Your task to perform on an android device: What's on my calendar today? Image 0: 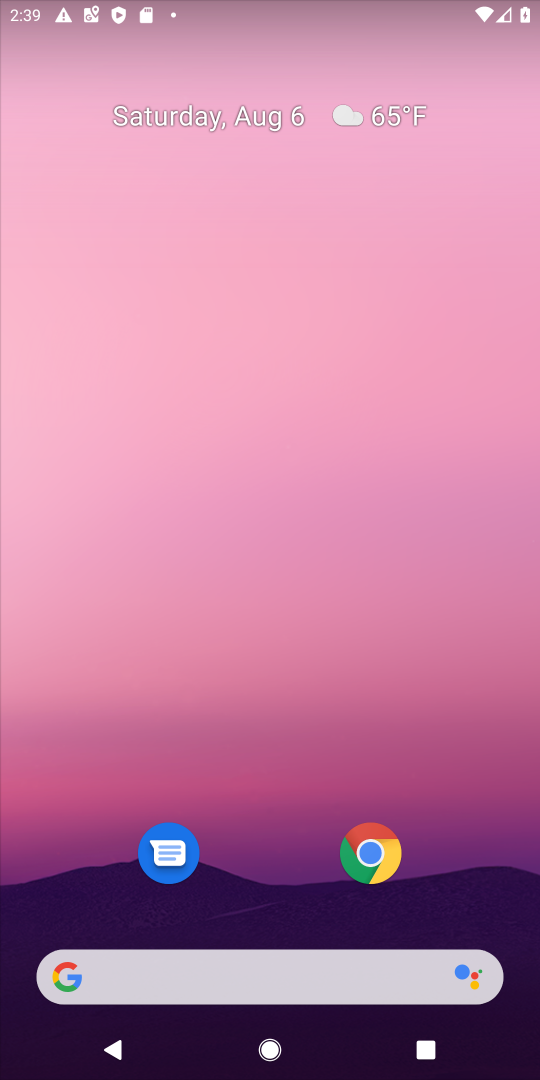
Step 0: drag from (230, 823) to (296, 76)
Your task to perform on an android device: What's on my calendar today? Image 1: 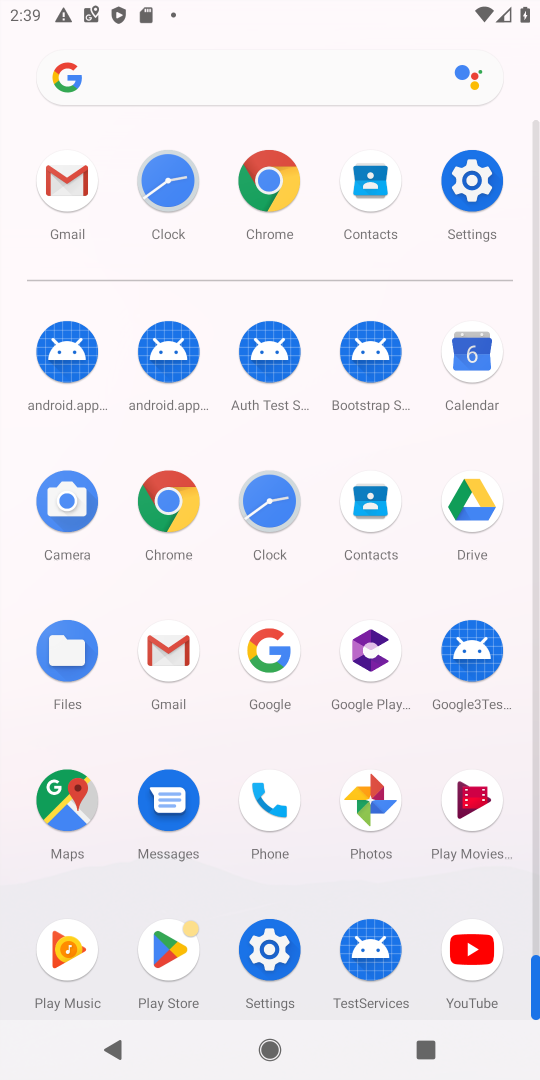
Step 1: click (473, 362)
Your task to perform on an android device: What's on my calendar today? Image 2: 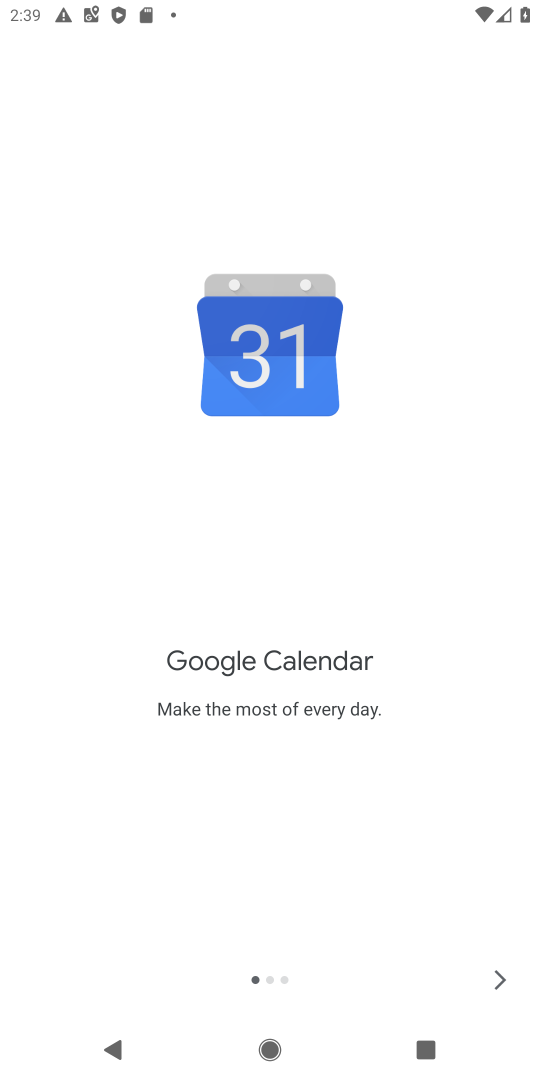
Step 2: click (510, 965)
Your task to perform on an android device: What's on my calendar today? Image 3: 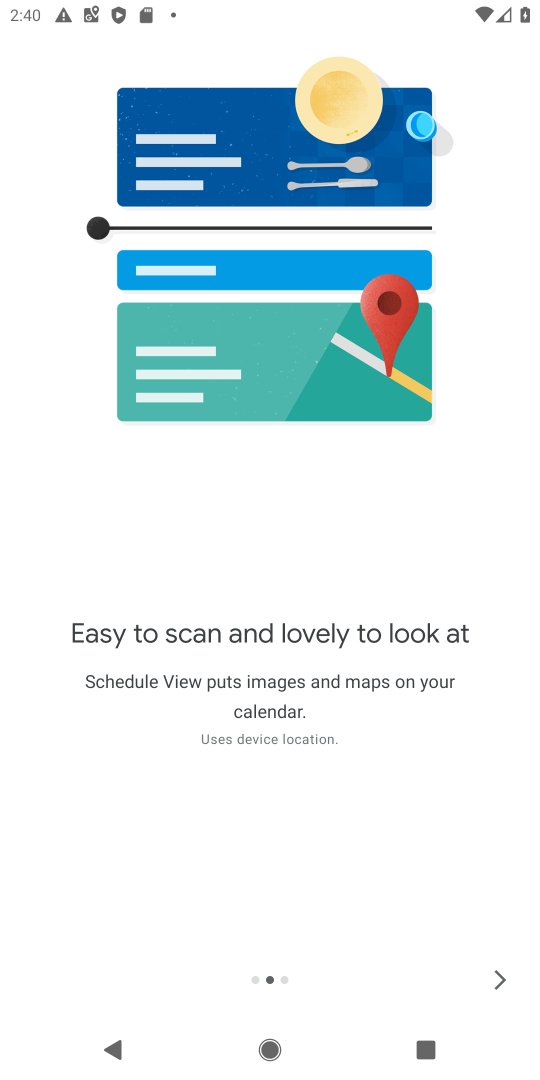
Step 3: click (485, 994)
Your task to perform on an android device: What's on my calendar today? Image 4: 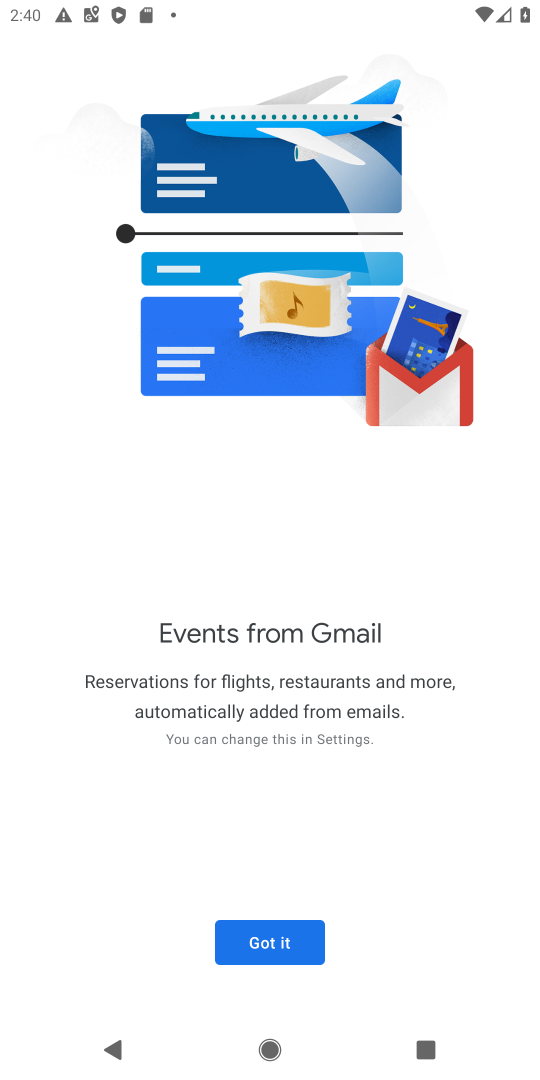
Step 4: click (234, 946)
Your task to perform on an android device: What's on my calendar today? Image 5: 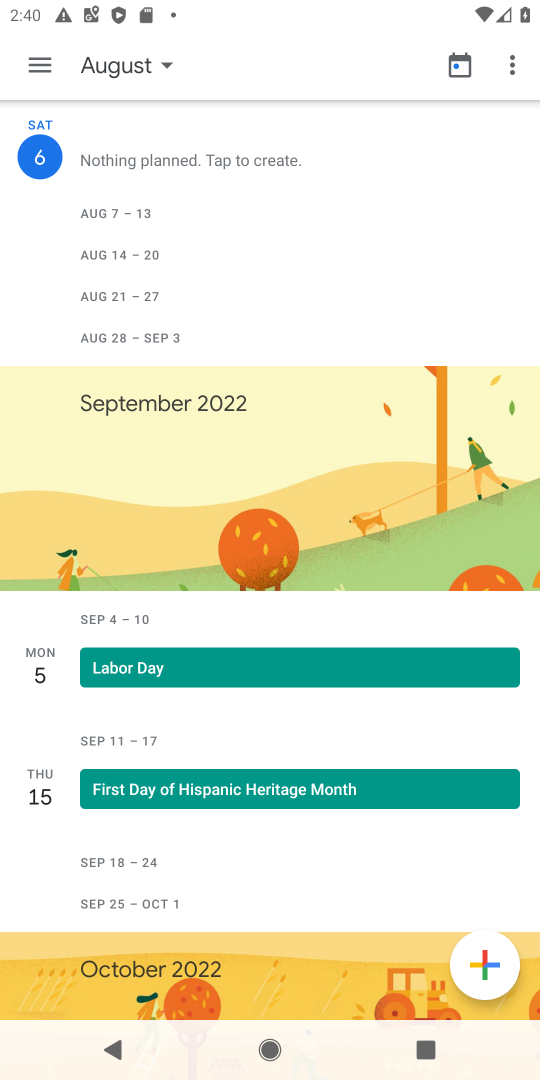
Step 5: task complete